Your task to perform on an android device: change the upload size in google photos Image 0: 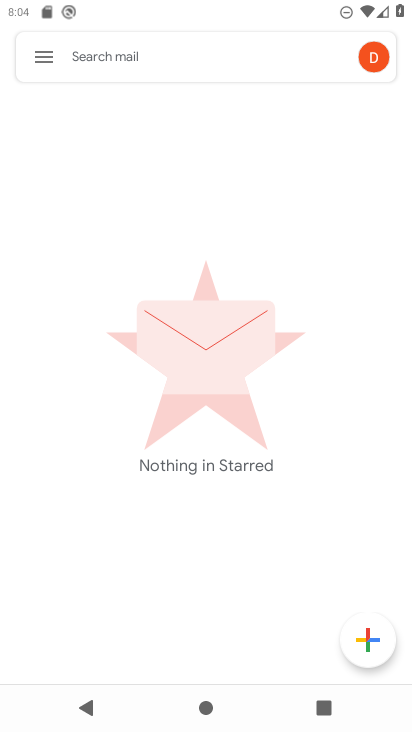
Step 0: press back button
Your task to perform on an android device: change the upload size in google photos Image 1: 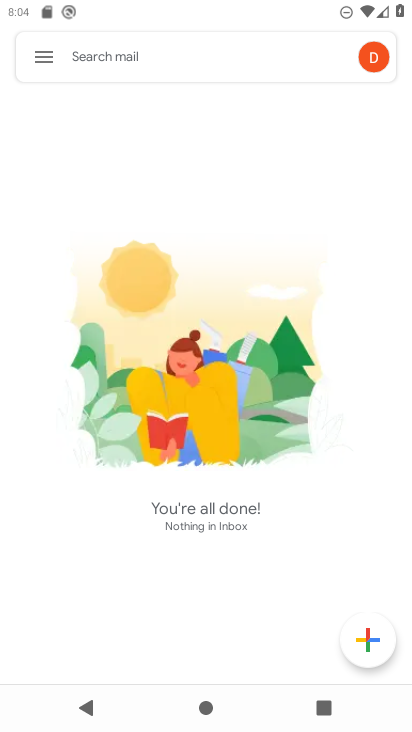
Step 1: press back button
Your task to perform on an android device: change the upload size in google photos Image 2: 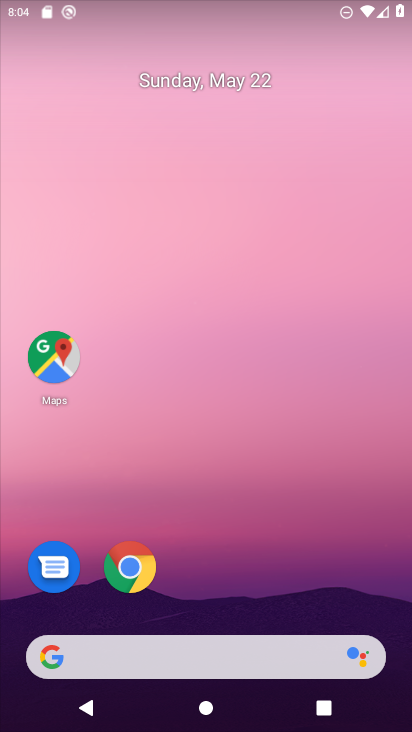
Step 2: drag from (267, 197) to (300, 44)
Your task to perform on an android device: change the upload size in google photos Image 3: 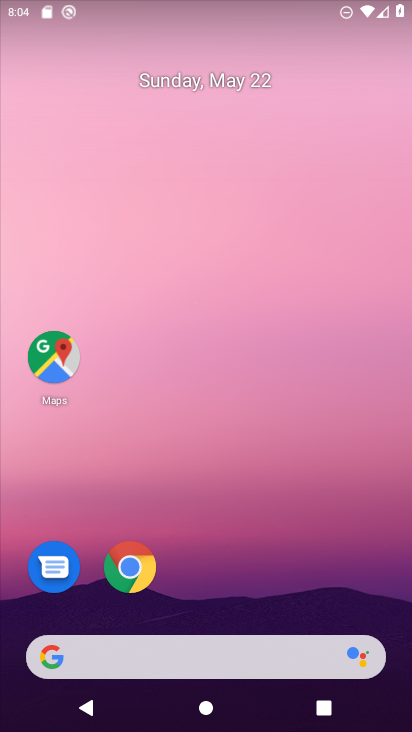
Step 3: drag from (246, 401) to (250, 0)
Your task to perform on an android device: change the upload size in google photos Image 4: 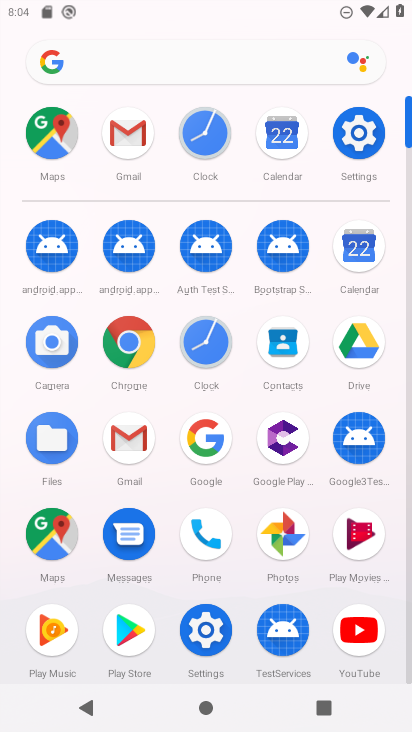
Step 4: click (291, 533)
Your task to perform on an android device: change the upload size in google photos Image 5: 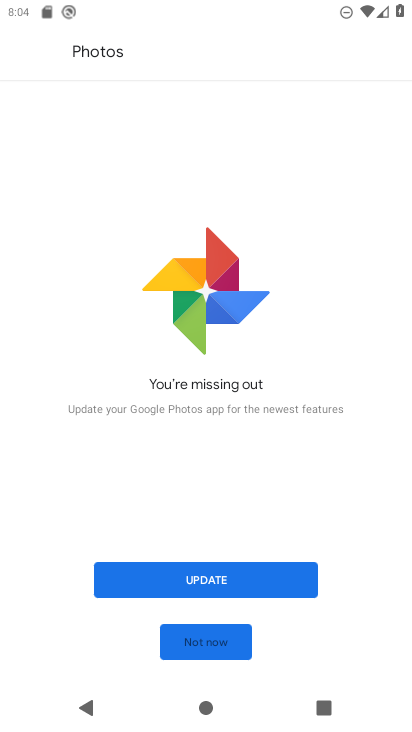
Step 5: click (198, 633)
Your task to perform on an android device: change the upload size in google photos Image 6: 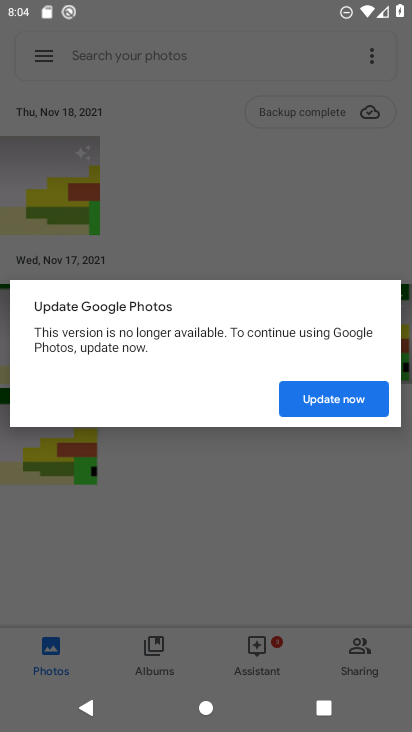
Step 6: click (331, 404)
Your task to perform on an android device: change the upload size in google photos Image 7: 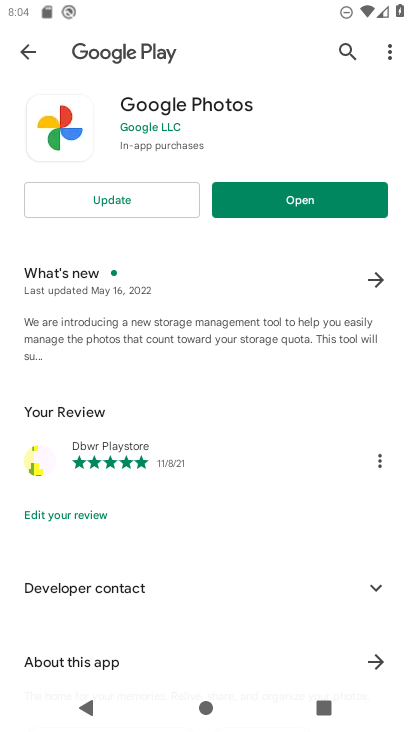
Step 7: click (302, 199)
Your task to perform on an android device: change the upload size in google photos Image 8: 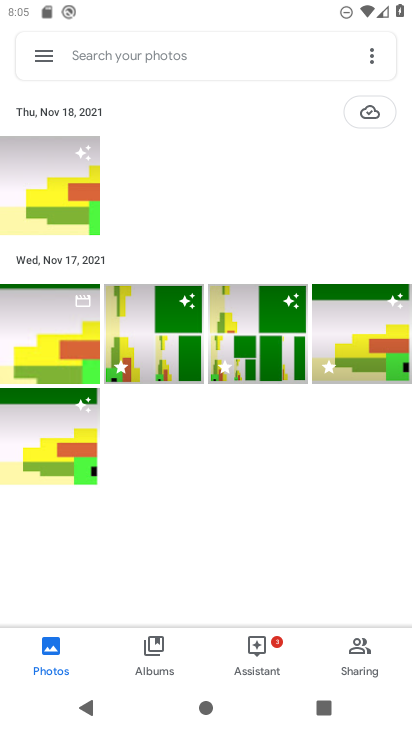
Step 8: click (54, 654)
Your task to perform on an android device: change the upload size in google photos Image 9: 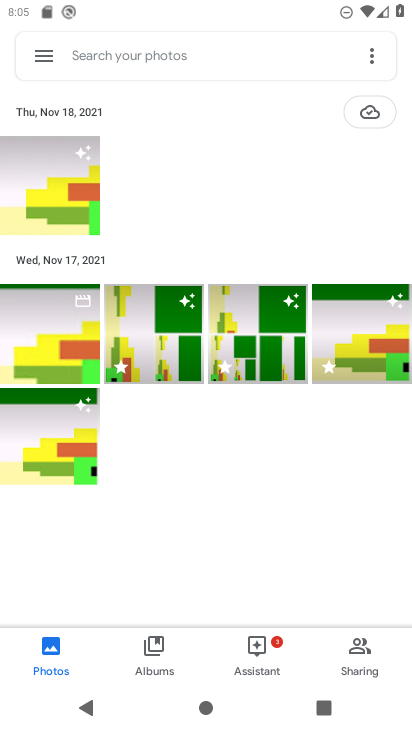
Step 9: click (42, 45)
Your task to perform on an android device: change the upload size in google photos Image 10: 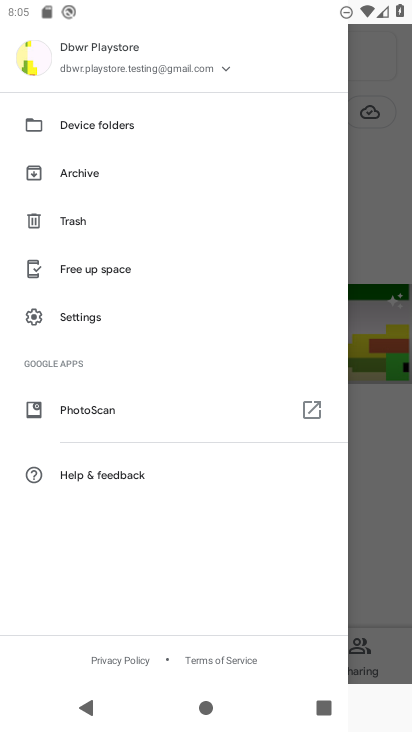
Step 10: click (70, 324)
Your task to perform on an android device: change the upload size in google photos Image 11: 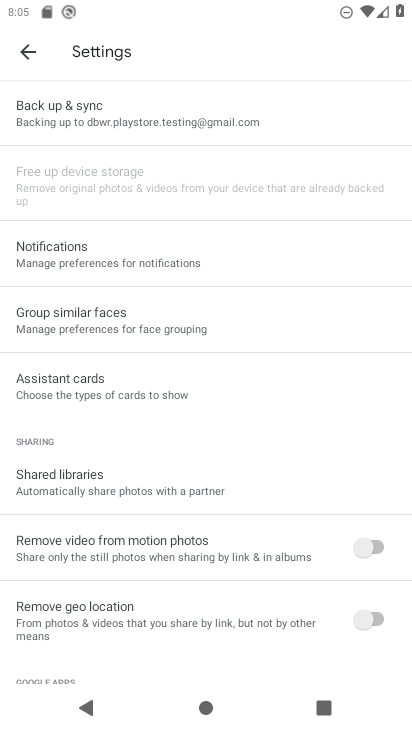
Step 11: drag from (124, 639) to (227, 24)
Your task to perform on an android device: change the upload size in google photos Image 12: 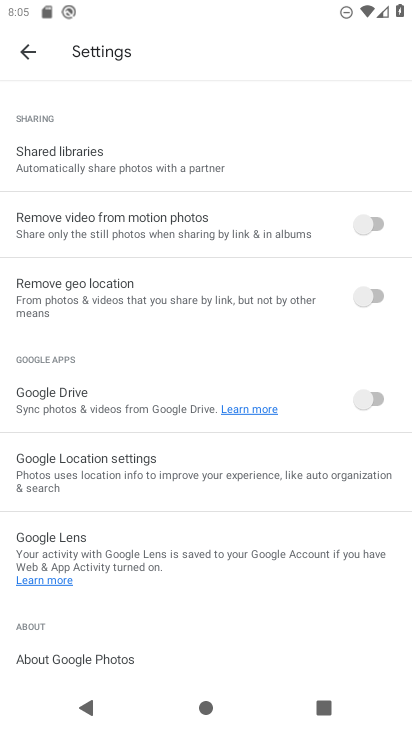
Step 12: drag from (166, 468) to (156, 673)
Your task to perform on an android device: change the upload size in google photos Image 13: 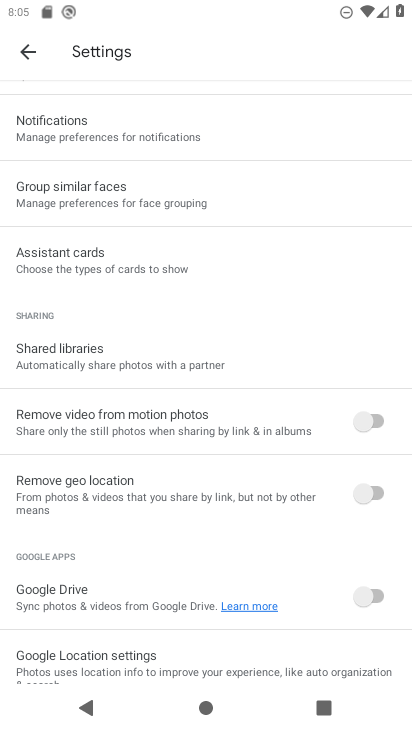
Step 13: drag from (92, 124) to (70, 638)
Your task to perform on an android device: change the upload size in google photos Image 14: 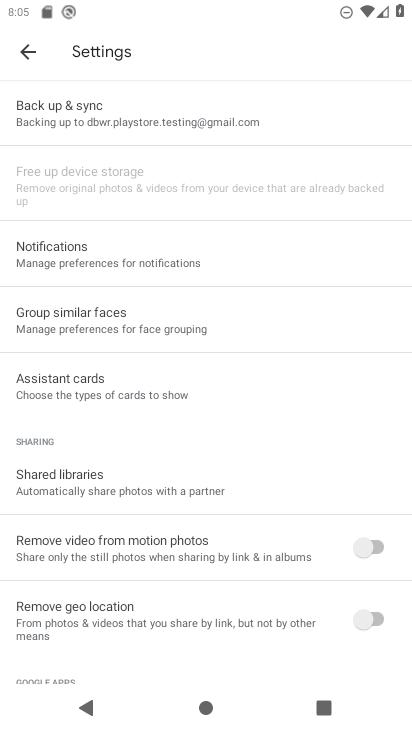
Step 14: click (87, 115)
Your task to perform on an android device: change the upload size in google photos Image 15: 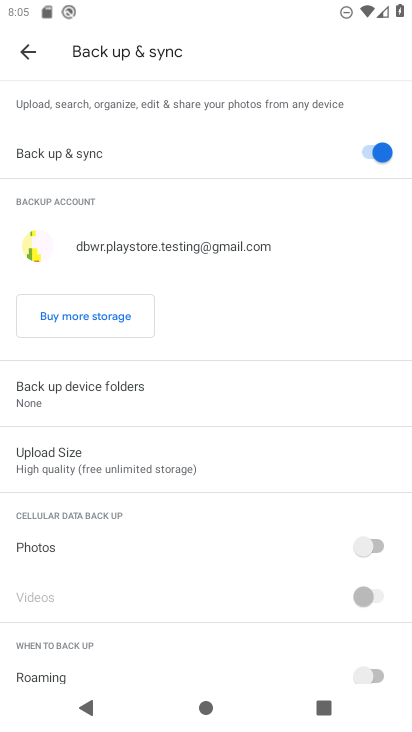
Step 15: click (94, 457)
Your task to perform on an android device: change the upload size in google photos Image 16: 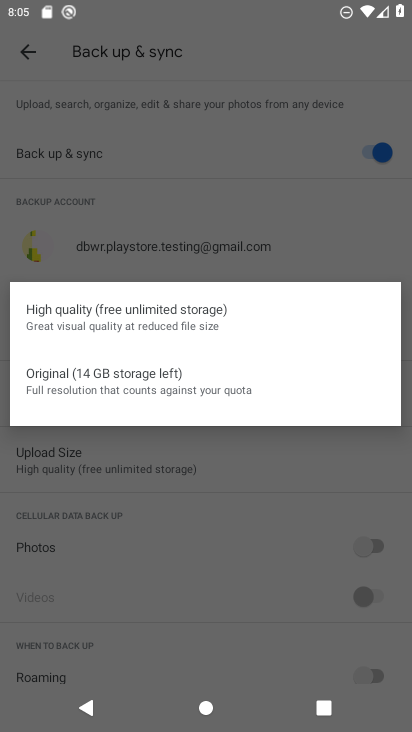
Step 16: click (98, 382)
Your task to perform on an android device: change the upload size in google photos Image 17: 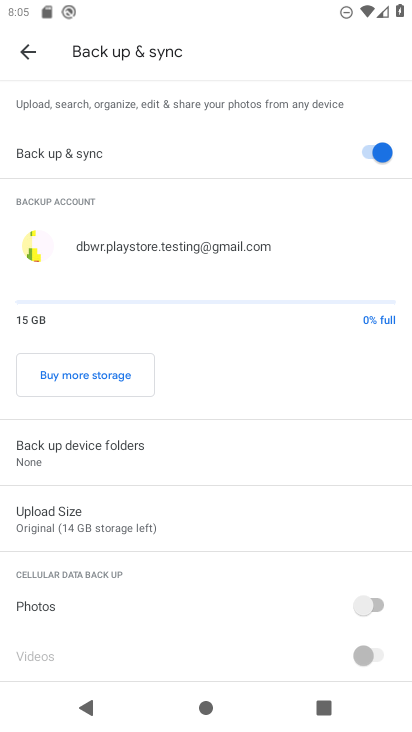
Step 17: task complete